Your task to perform on an android device: Show me the alarms in the clock app Image 0: 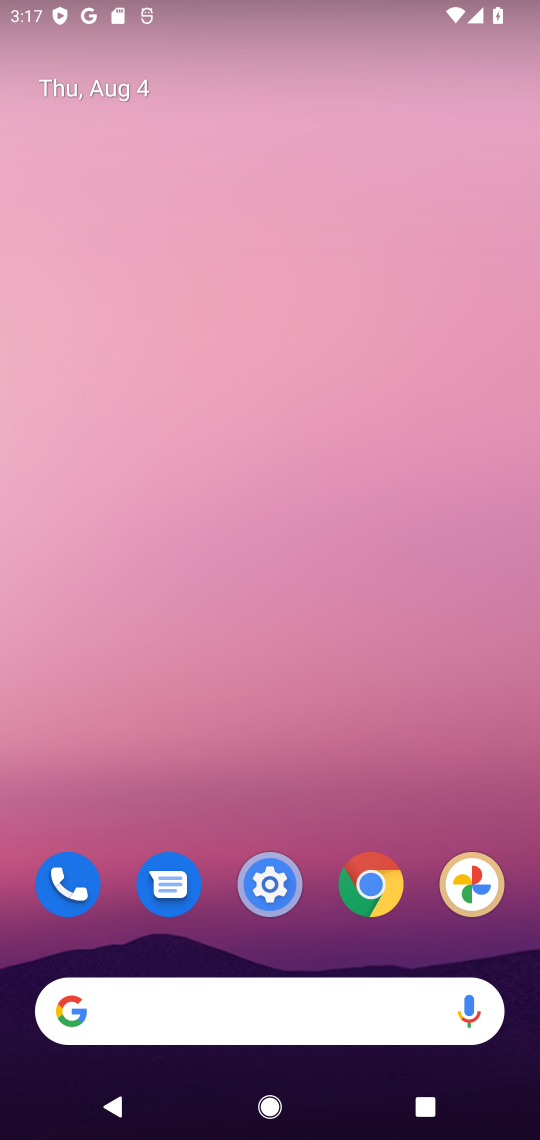
Step 0: drag from (233, 926) to (294, 127)
Your task to perform on an android device: Show me the alarms in the clock app Image 1: 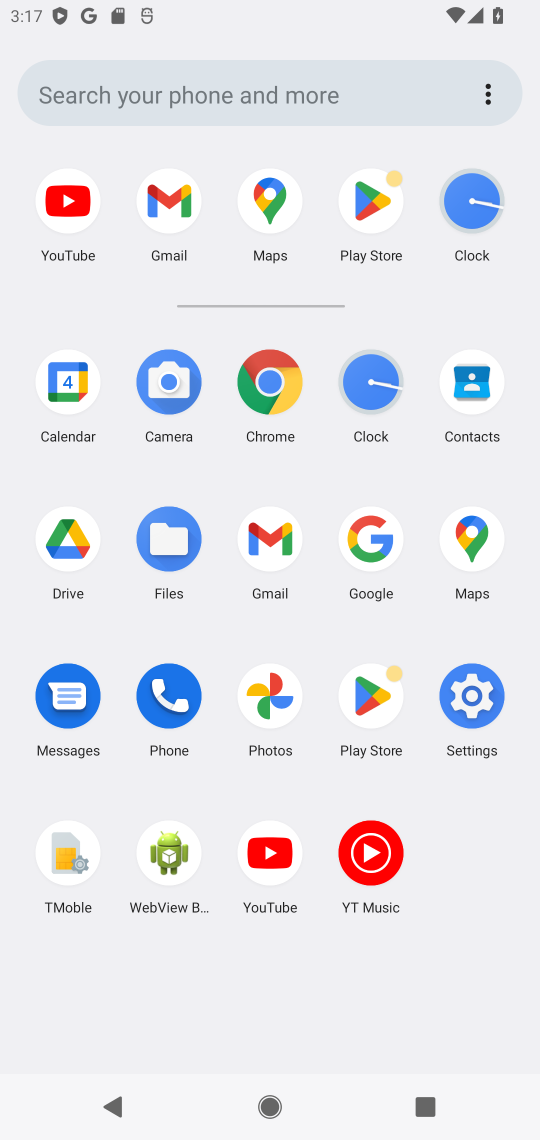
Step 1: click (372, 366)
Your task to perform on an android device: Show me the alarms in the clock app Image 2: 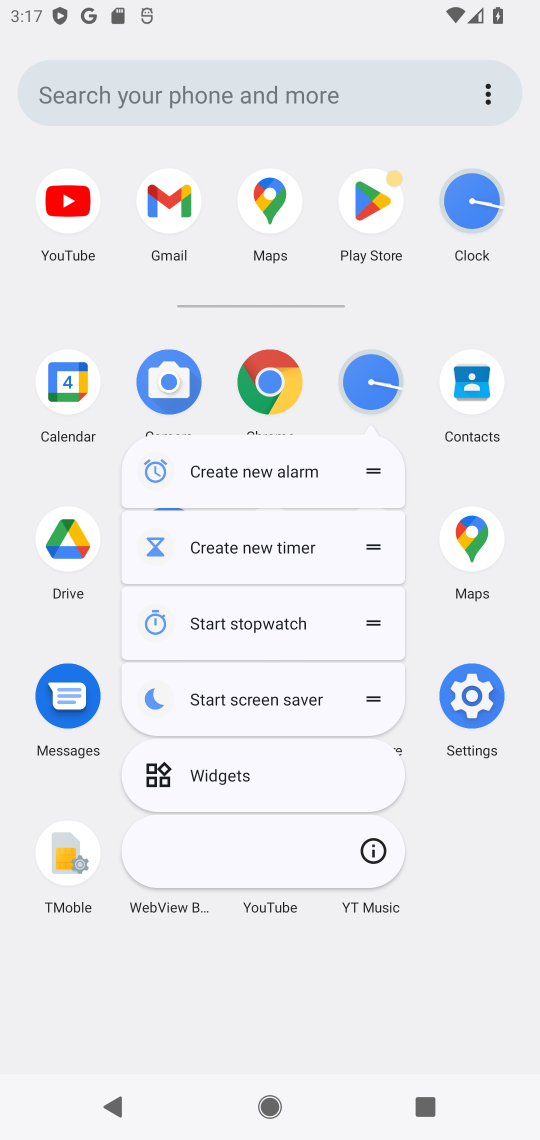
Step 2: click (372, 855)
Your task to perform on an android device: Show me the alarms in the clock app Image 3: 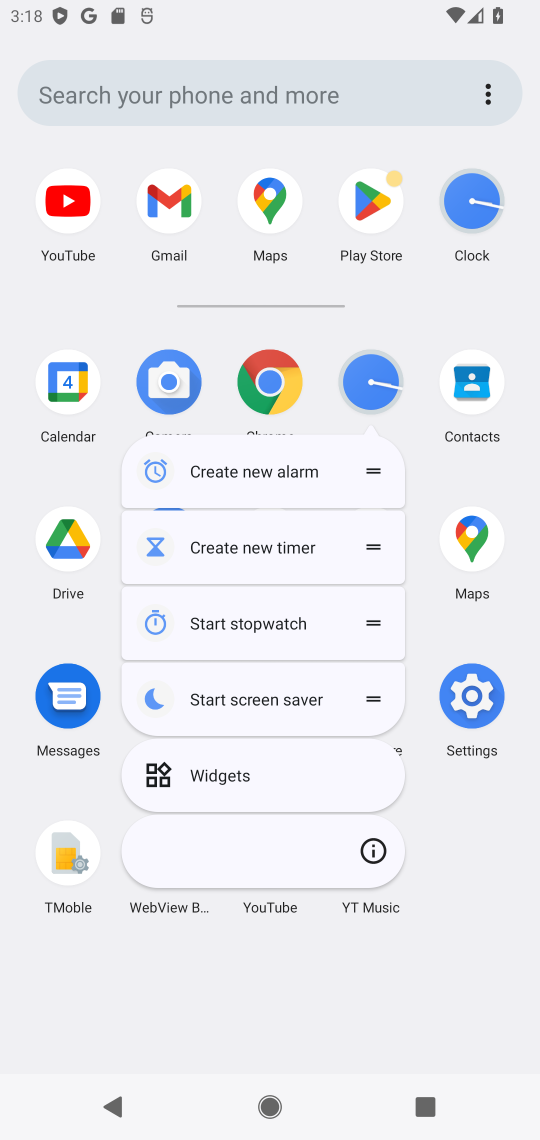
Step 3: click (367, 844)
Your task to perform on an android device: Show me the alarms in the clock app Image 4: 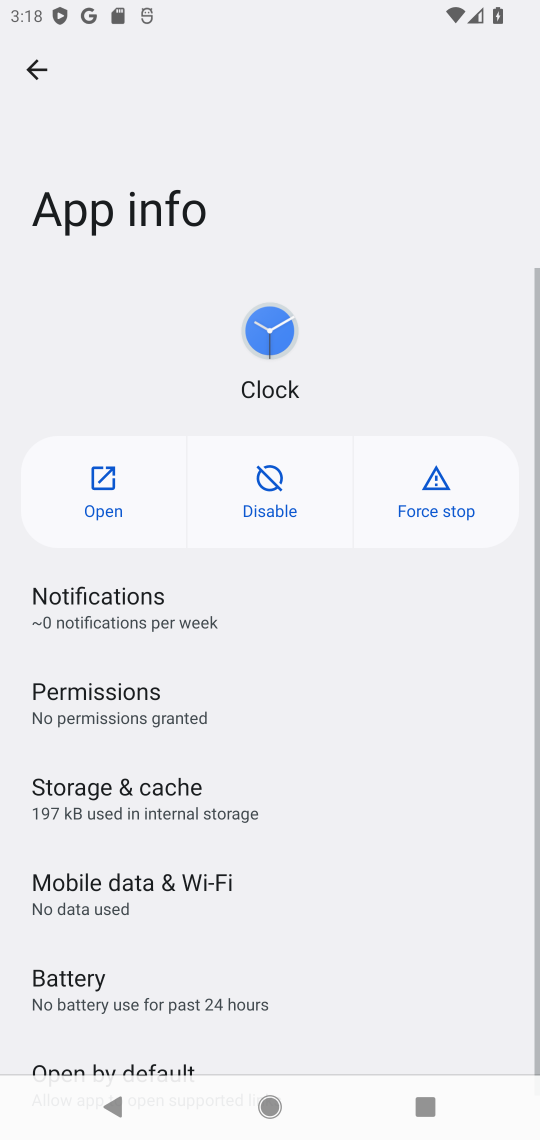
Step 4: click (73, 507)
Your task to perform on an android device: Show me the alarms in the clock app Image 5: 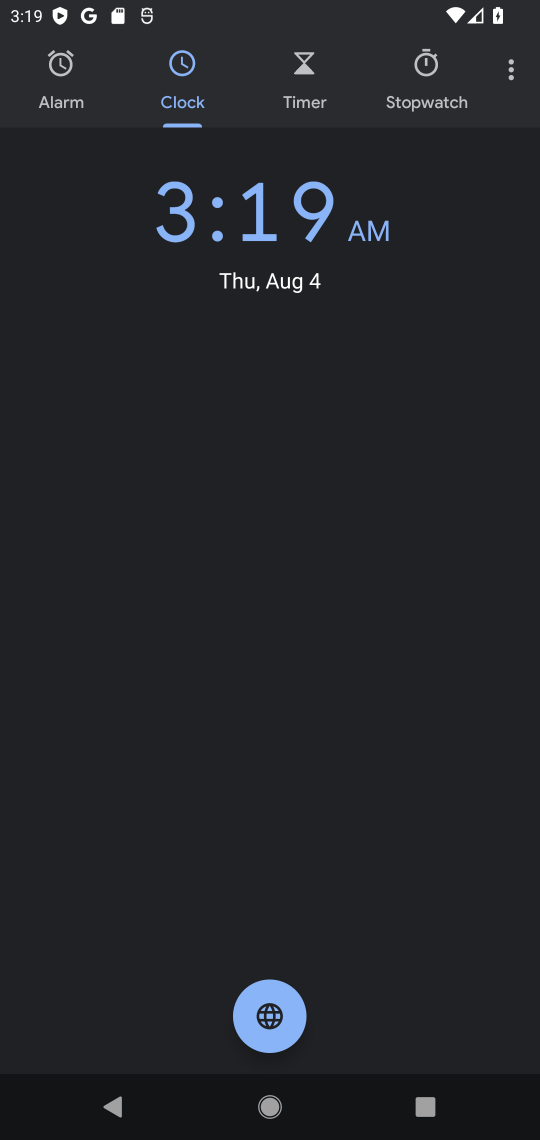
Step 5: click (71, 94)
Your task to perform on an android device: Show me the alarms in the clock app Image 6: 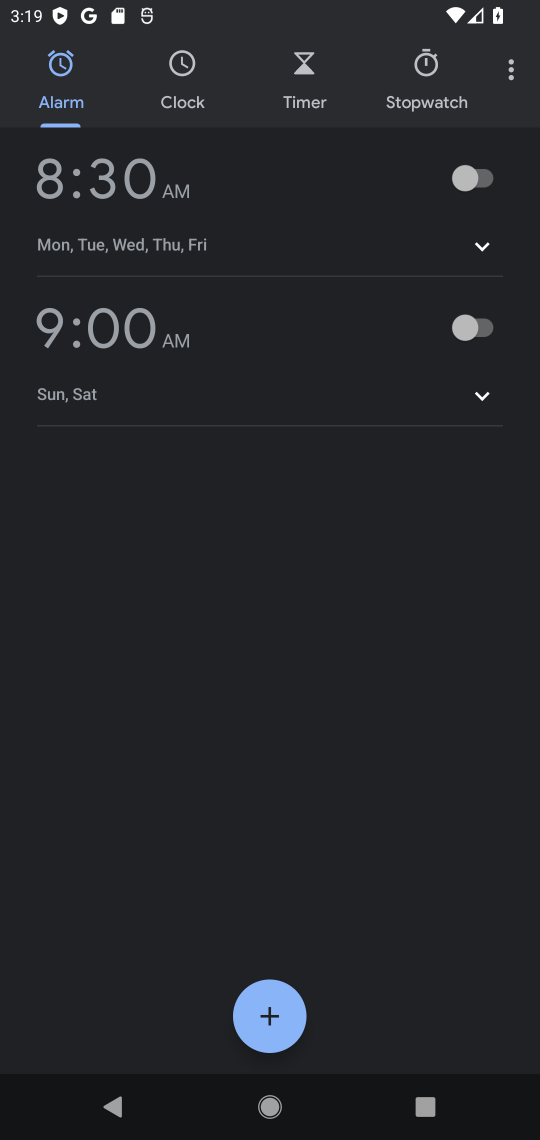
Step 6: task complete